Your task to perform on an android device: change the clock display to analog Image 0: 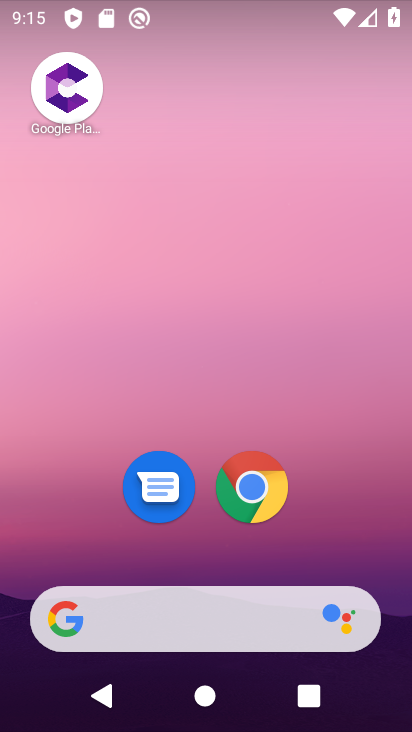
Step 0: drag from (222, 573) to (296, 15)
Your task to perform on an android device: change the clock display to analog Image 1: 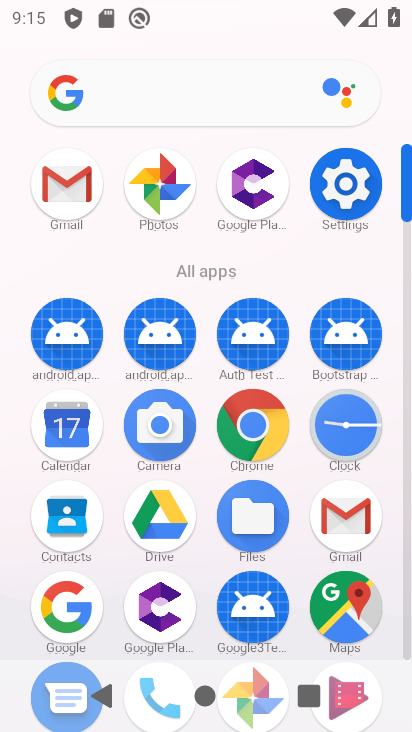
Step 1: click (354, 439)
Your task to perform on an android device: change the clock display to analog Image 2: 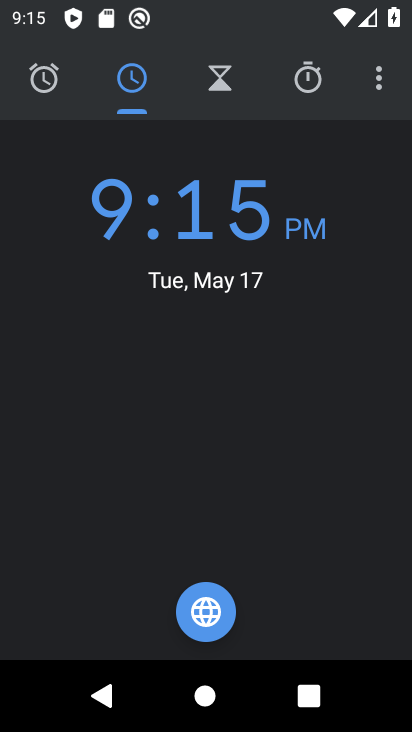
Step 2: click (367, 81)
Your task to perform on an android device: change the clock display to analog Image 3: 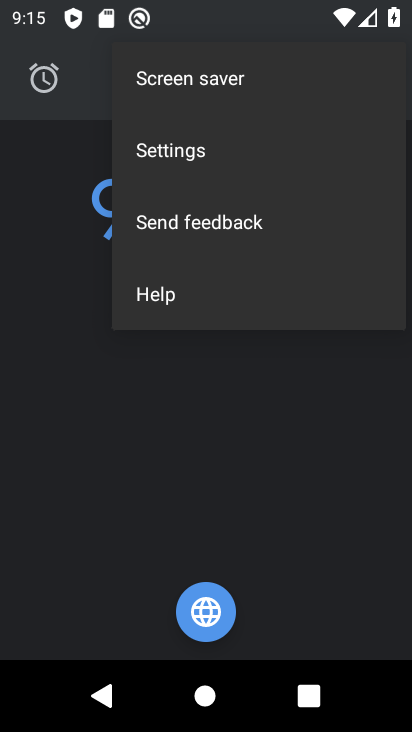
Step 3: click (166, 168)
Your task to perform on an android device: change the clock display to analog Image 4: 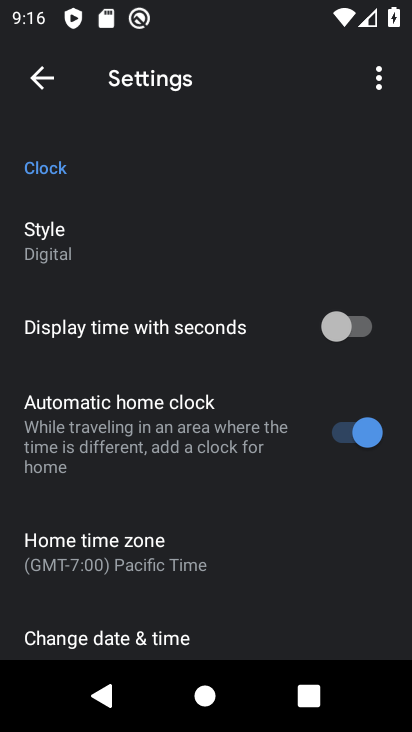
Step 4: click (73, 251)
Your task to perform on an android device: change the clock display to analog Image 5: 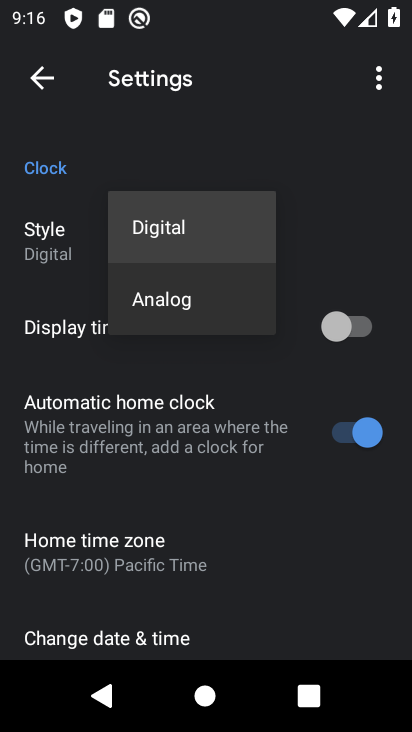
Step 5: click (164, 315)
Your task to perform on an android device: change the clock display to analog Image 6: 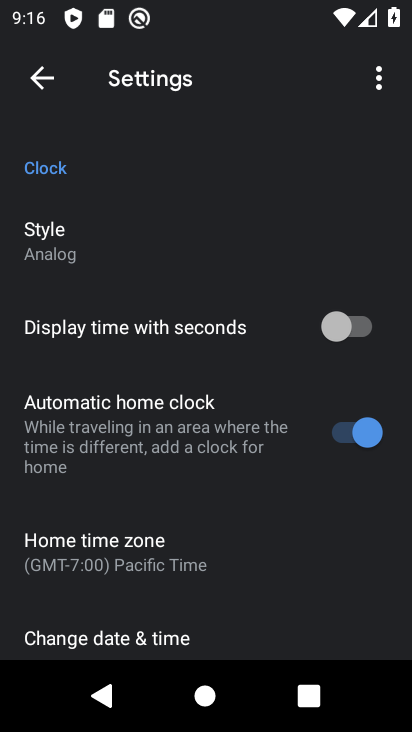
Step 6: task complete